Your task to perform on an android device: Go to network settings Image 0: 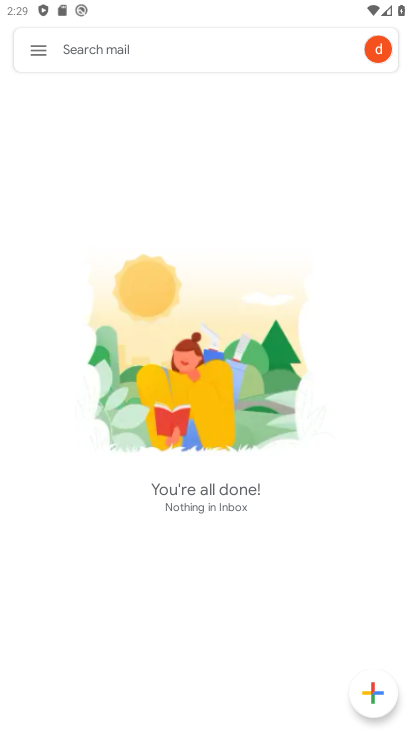
Step 0: press home button
Your task to perform on an android device: Go to network settings Image 1: 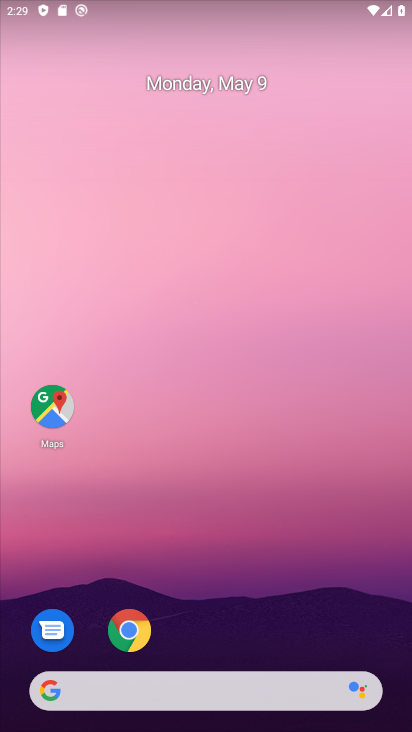
Step 1: drag from (274, 627) to (216, 216)
Your task to perform on an android device: Go to network settings Image 2: 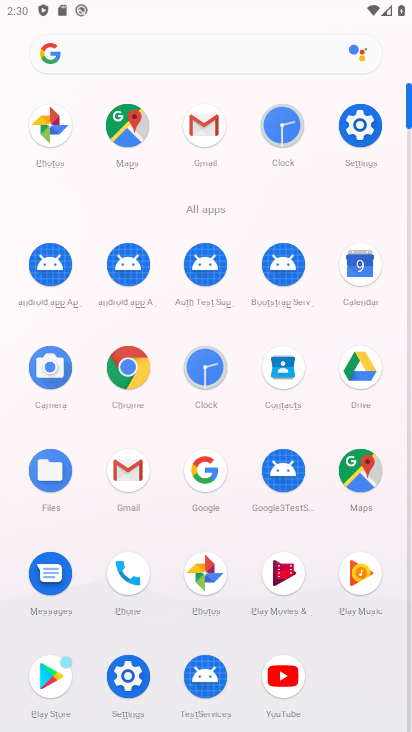
Step 2: click (366, 131)
Your task to perform on an android device: Go to network settings Image 3: 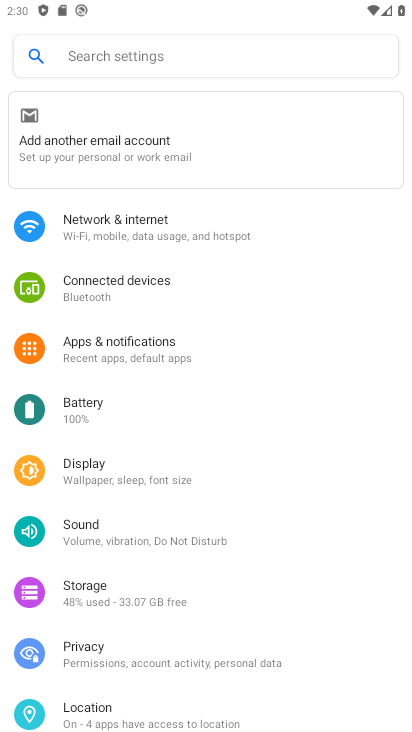
Step 3: click (290, 230)
Your task to perform on an android device: Go to network settings Image 4: 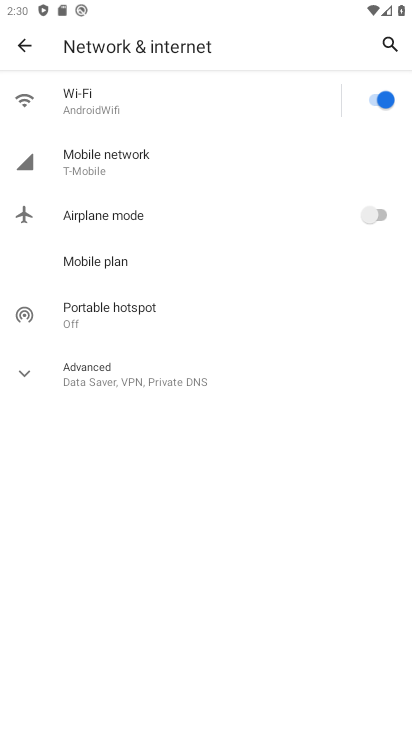
Step 4: click (201, 163)
Your task to perform on an android device: Go to network settings Image 5: 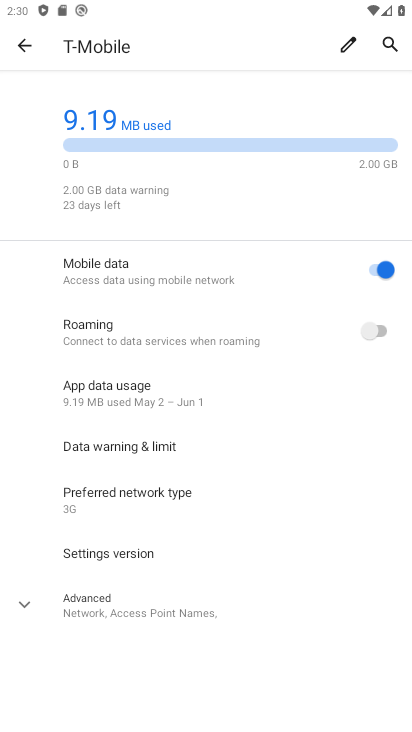
Step 5: task complete